Your task to perform on an android device: turn off sleep mode Image 0: 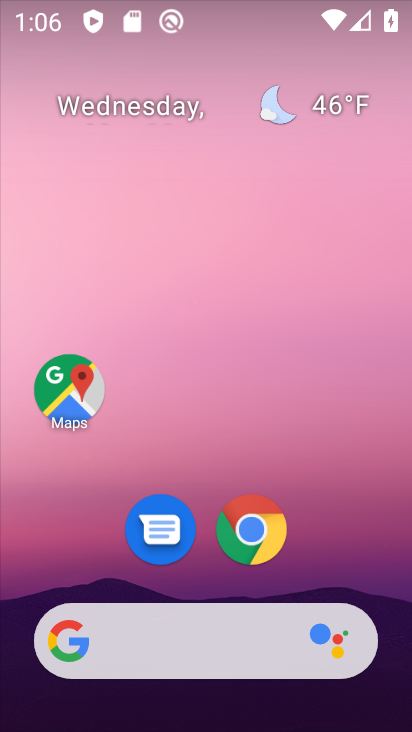
Step 0: drag from (225, 586) to (209, 314)
Your task to perform on an android device: turn off sleep mode Image 1: 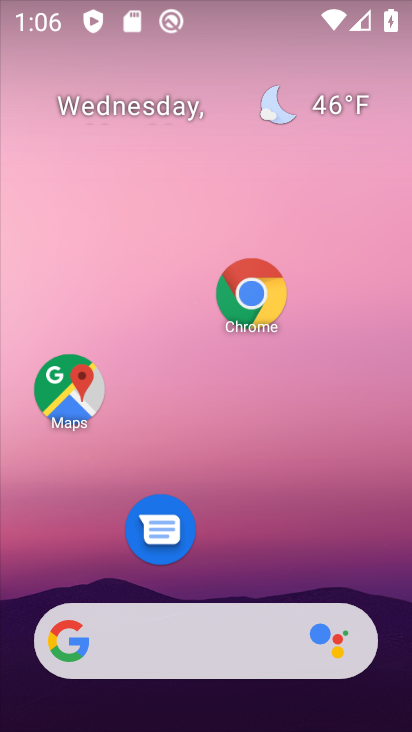
Step 1: drag from (221, 593) to (267, 190)
Your task to perform on an android device: turn off sleep mode Image 2: 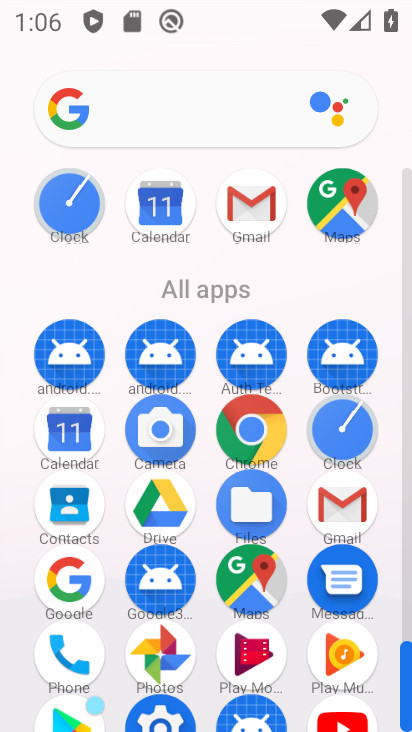
Step 2: click (155, 715)
Your task to perform on an android device: turn off sleep mode Image 3: 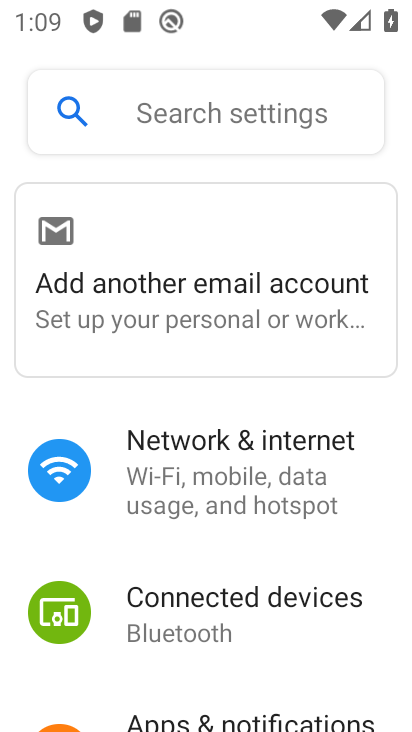
Step 3: task complete